Your task to perform on an android device: What is the recent news? Image 0: 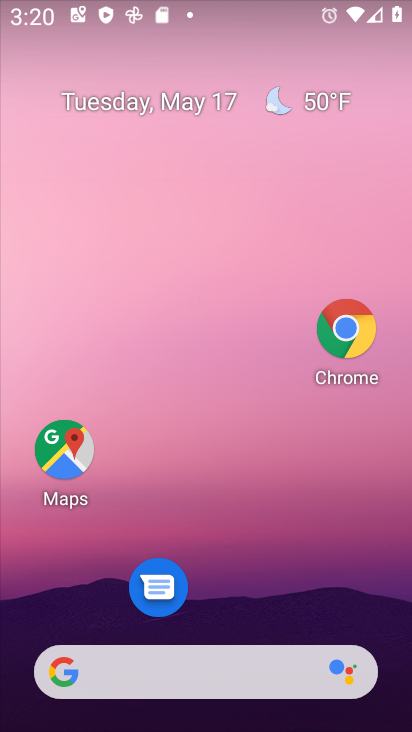
Step 0: click (216, 680)
Your task to perform on an android device: What is the recent news? Image 1: 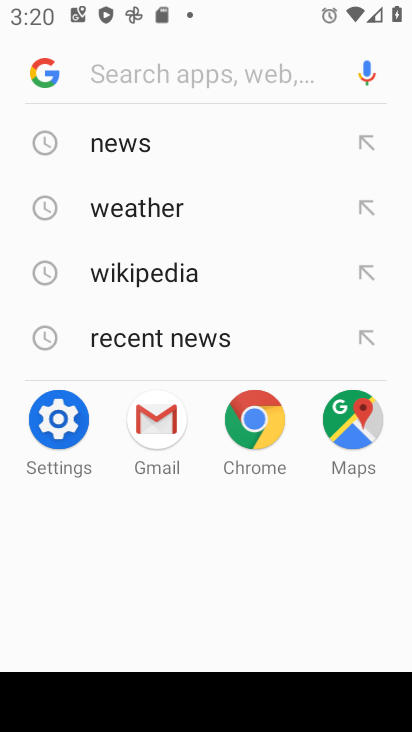
Step 1: click (185, 157)
Your task to perform on an android device: What is the recent news? Image 2: 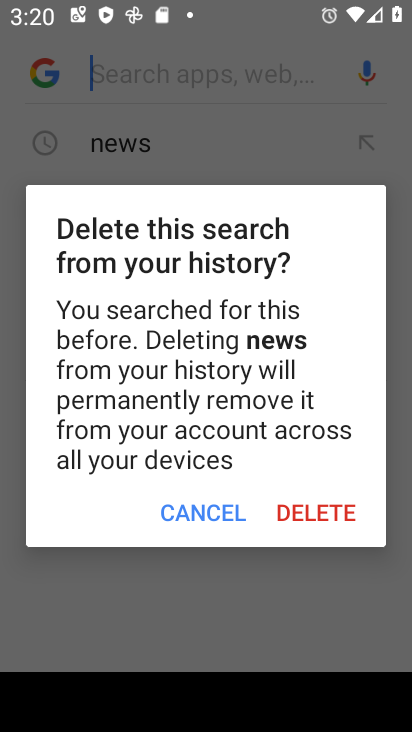
Step 2: click (213, 510)
Your task to perform on an android device: What is the recent news? Image 3: 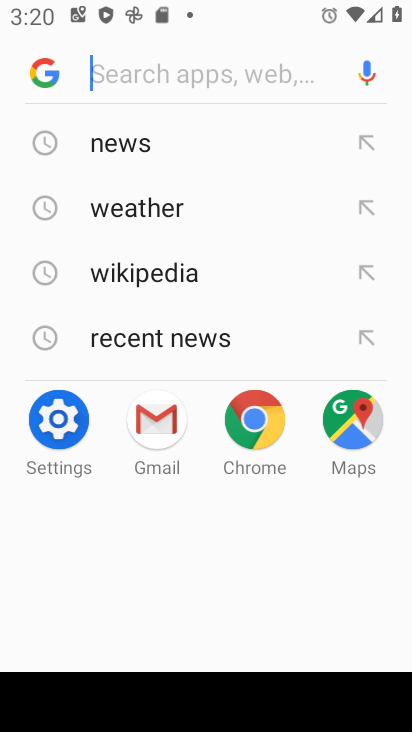
Step 3: click (195, 334)
Your task to perform on an android device: What is the recent news? Image 4: 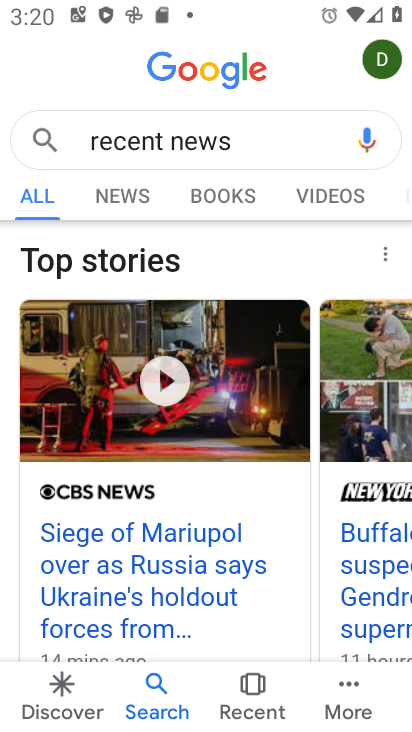
Step 4: task complete